Your task to perform on an android device: toggle translation in the chrome app Image 0: 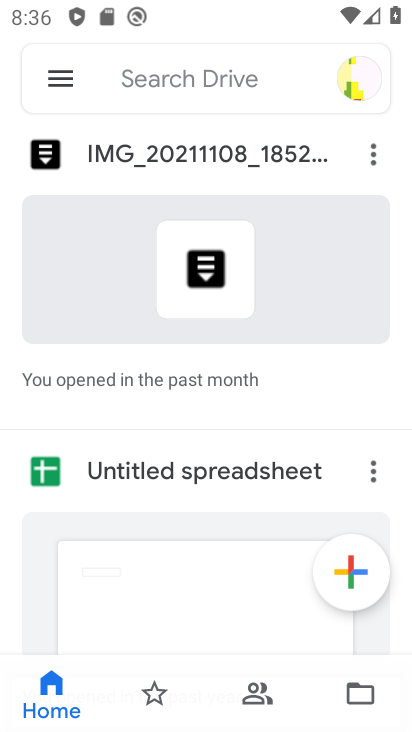
Step 0: press home button
Your task to perform on an android device: toggle translation in the chrome app Image 1: 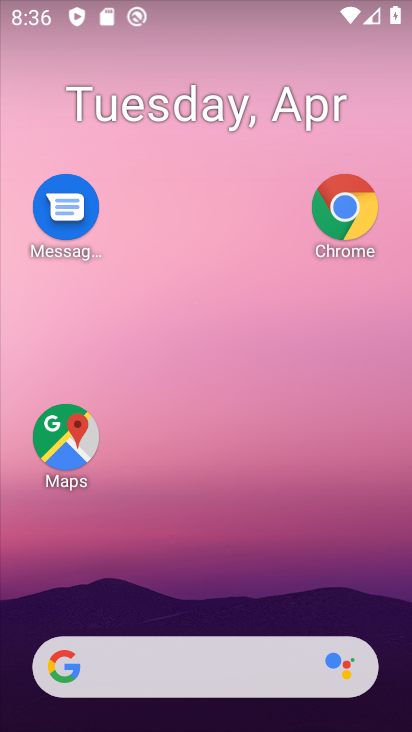
Step 1: drag from (214, 628) to (283, 8)
Your task to perform on an android device: toggle translation in the chrome app Image 2: 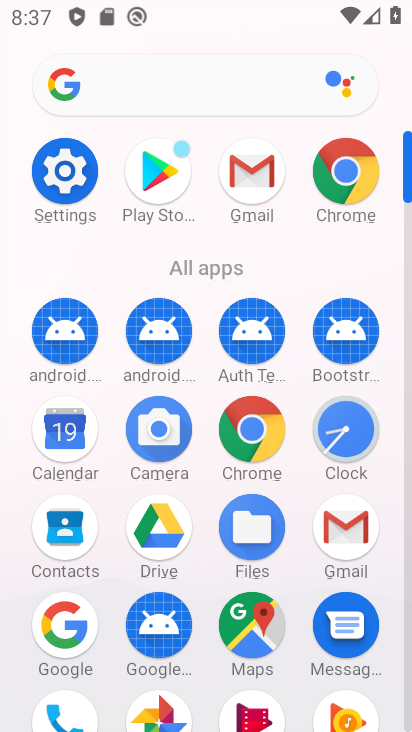
Step 2: click (343, 161)
Your task to perform on an android device: toggle translation in the chrome app Image 3: 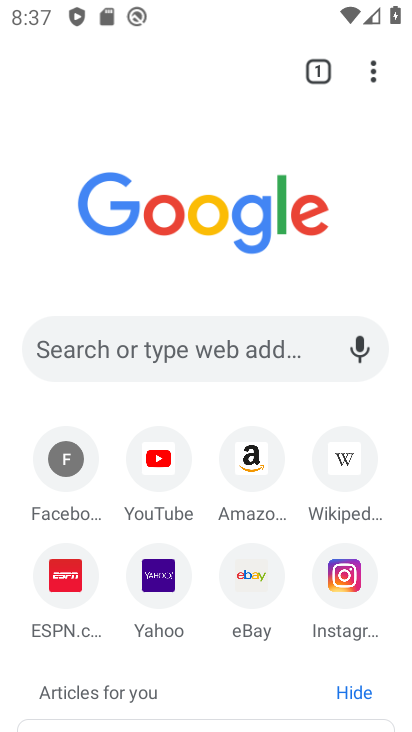
Step 3: click (366, 69)
Your task to perform on an android device: toggle translation in the chrome app Image 4: 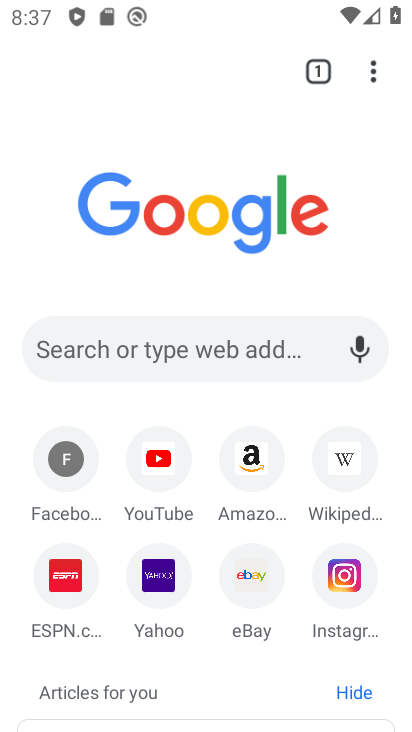
Step 4: click (366, 69)
Your task to perform on an android device: toggle translation in the chrome app Image 5: 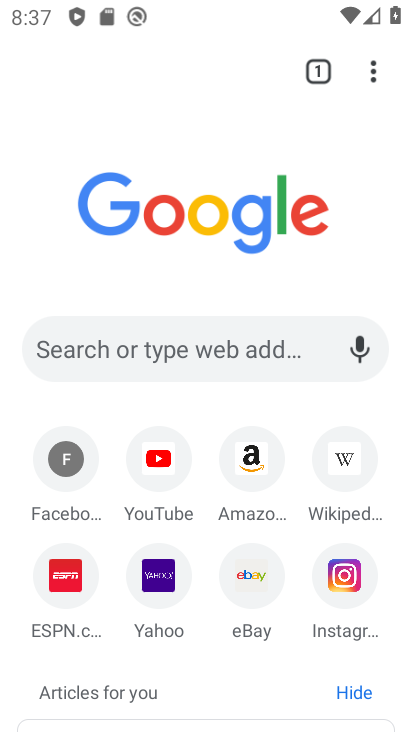
Step 5: click (367, 71)
Your task to perform on an android device: toggle translation in the chrome app Image 6: 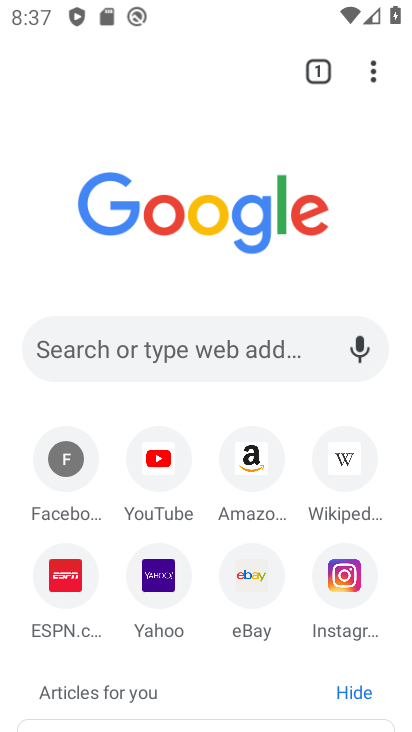
Step 6: click (373, 73)
Your task to perform on an android device: toggle translation in the chrome app Image 7: 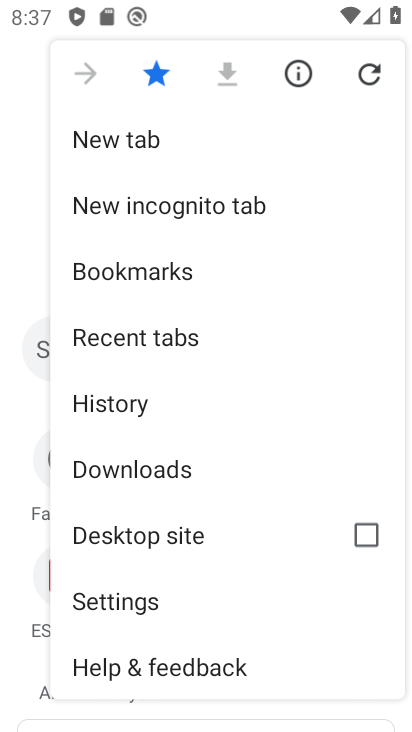
Step 7: click (153, 591)
Your task to perform on an android device: toggle translation in the chrome app Image 8: 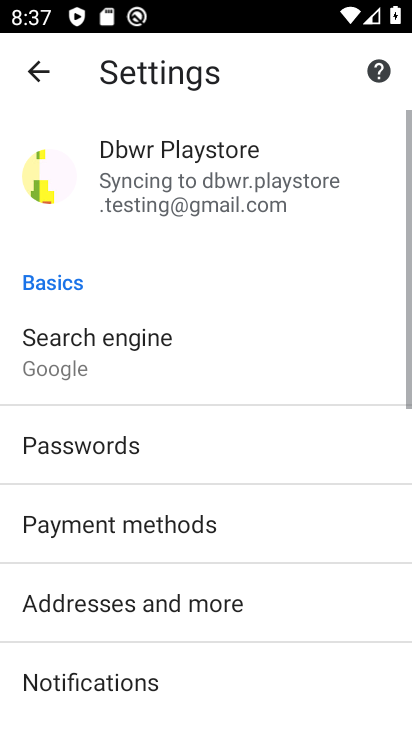
Step 8: drag from (153, 591) to (159, 88)
Your task to perform on an android device: toggle translation in the chrome app Image 9: 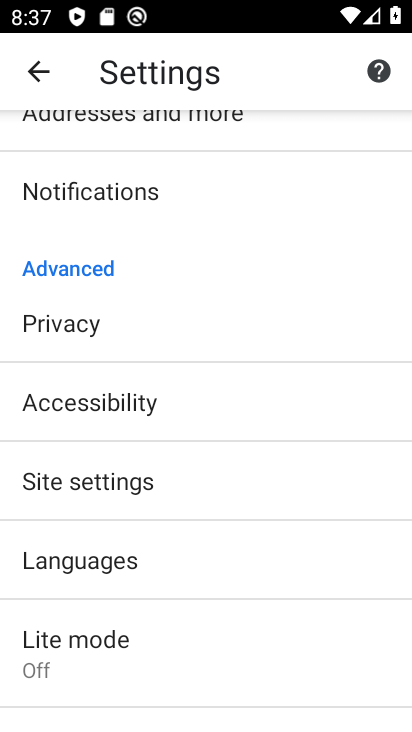
Step 9: click (78, 555)
Your task to perform on an android device: toggle translation in the chrome app Image 10: 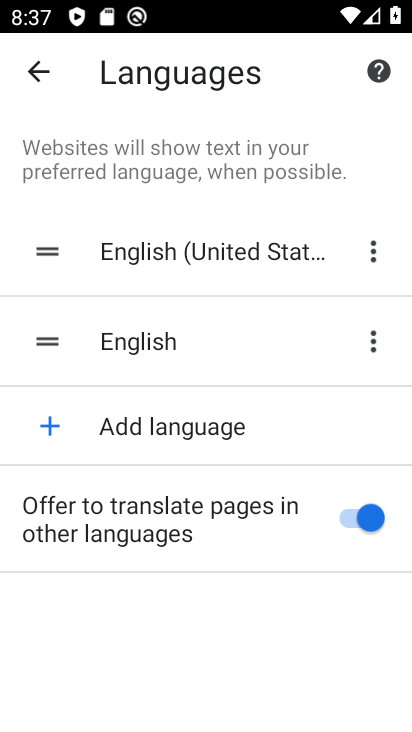
Step 10: click (348, 517)
Your task to perform on an android device: toggle translation in the chrome app Image 11: 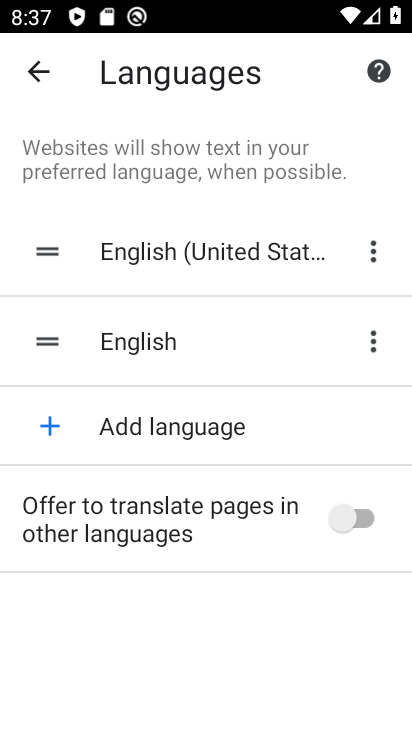
Step 11: task complete